Your task to perform on an android device: change the upload size in google photos Image 0: 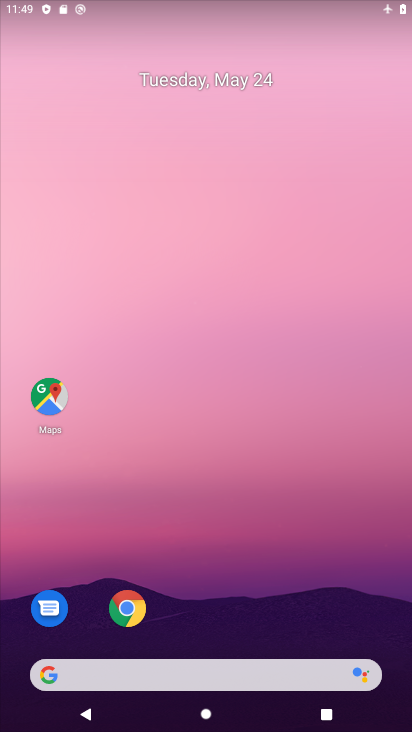
Step 0: drag from (274, 627) to (243, 134)
Your task to perform on an android device: change the upload size in google photos Image 1: 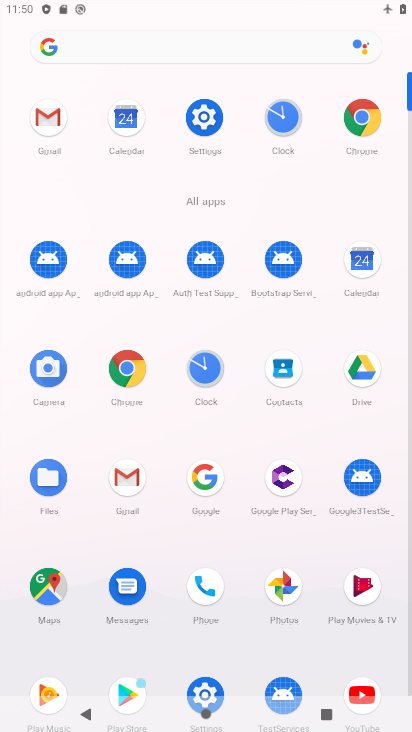
Step 1: click (279, 596)
Your task to perform on an android device: change the upload size in google photos Image 2: 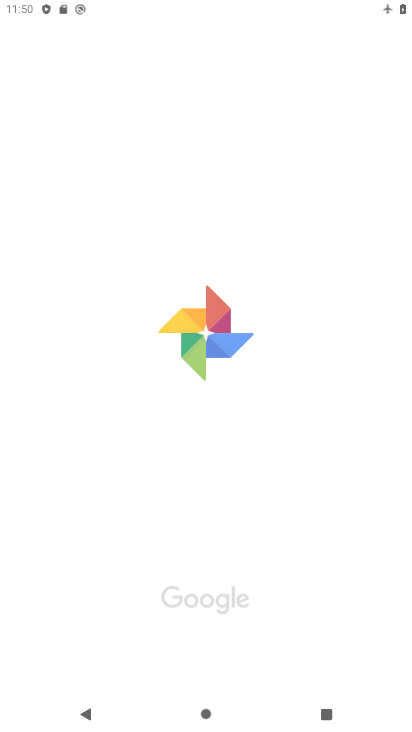
Step 2: task complete